Your task to perform on an android device: search for starred emails in the gmail app Image 0: 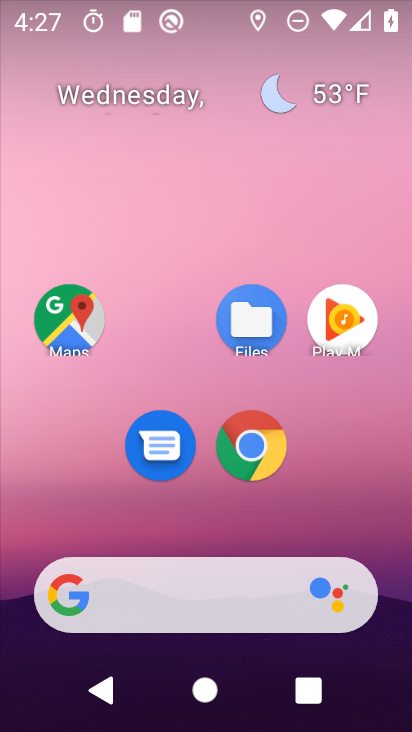
Step 0: drag from (285, 484) to (331, 227)
Your task to perform on an android device: search for starred emails in the gmail app Image 1: 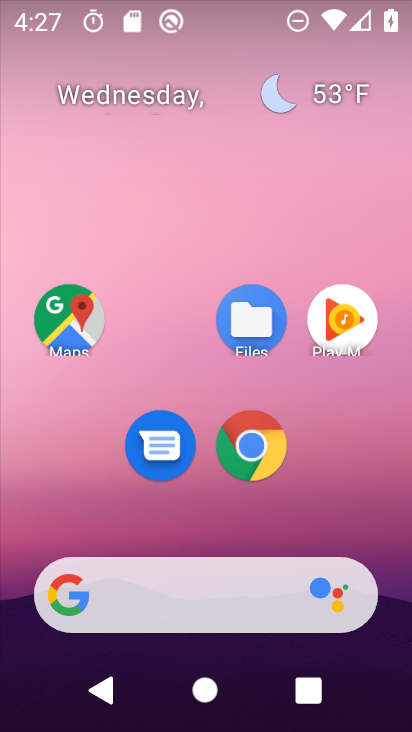
Step 1: drag from (331, 512) to (336, 7)
Your task to perform on an android device: search for starred emails in the gmail app Image 2: 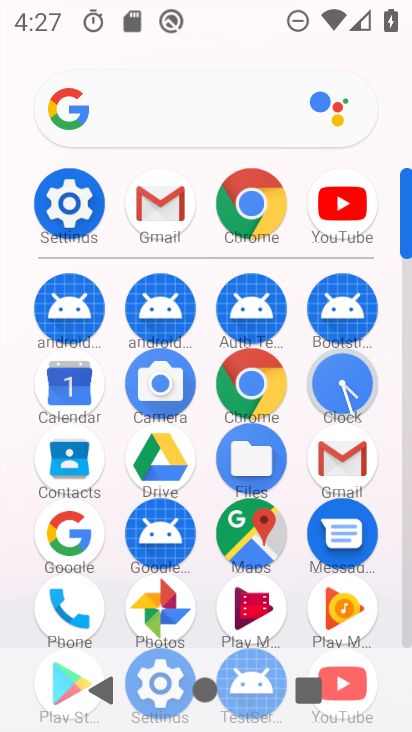
Step 2: click (159, 195)
Your task to perform on an android device: search for starred emails in the gmail app Image 3: 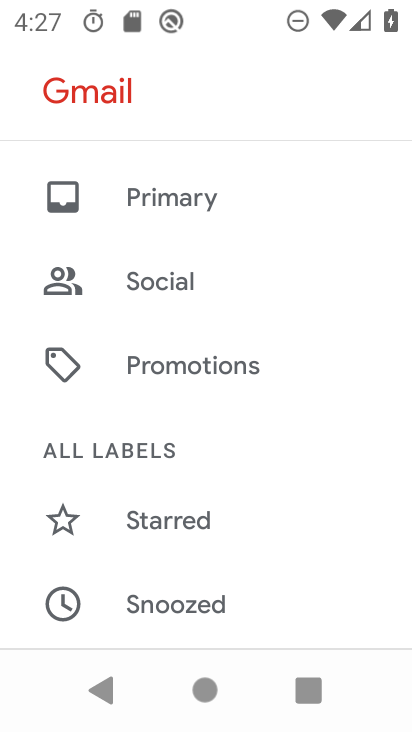
Step 3: click (165, 526)
Your task to perform on an android device: search for starred emails in the gmail app Image 4: 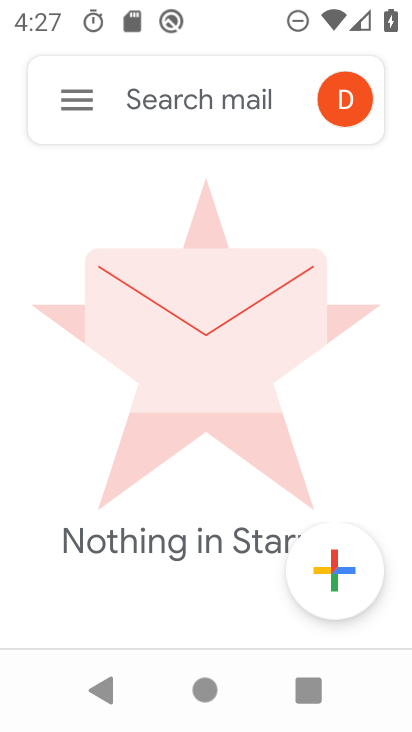
Step 4: task complete